Your task to perform on an android device: open chrome and create a bookmark for the current page Image 0: 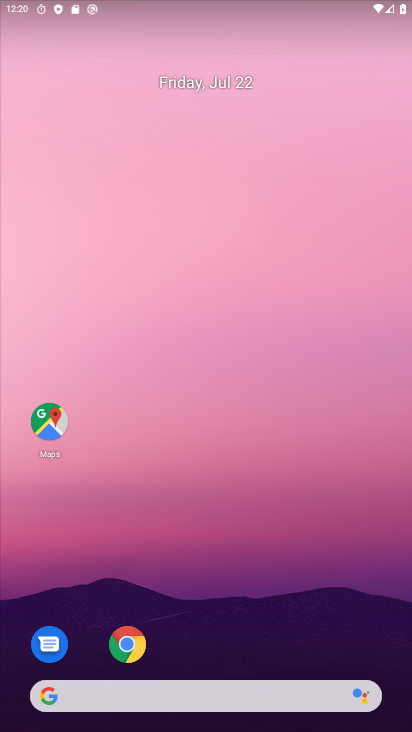
Step 0: drag from (226, 426) to (237, 345)
Your task to perform on an android device: open chrome and create a bookmark for the current page Image 1: 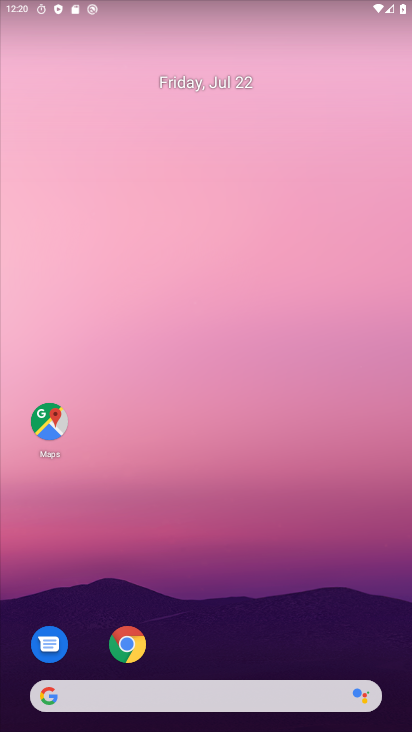
Step 1: drag from (234, 683) to (171, 223)
Your task to perform on an android device: open chrome and create a bookmark for the current page Image 2: 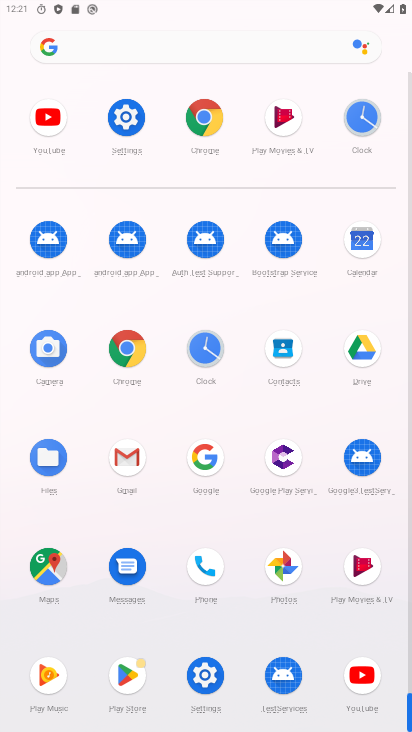
Step 2: click (135, 373)
Your task to perform on an android device: open chrome and create a bookmark for the current page Image 3: 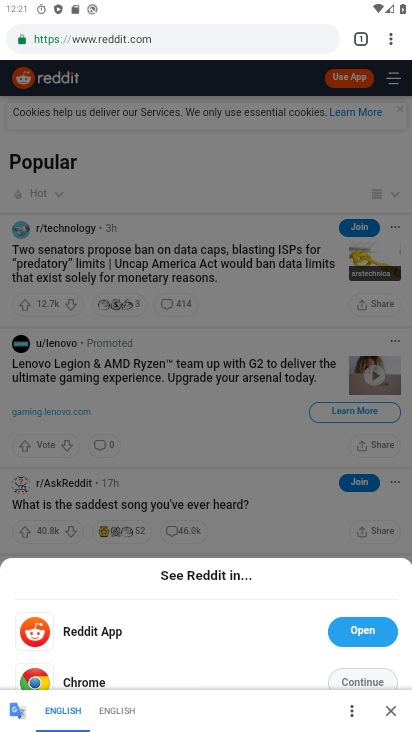
Step 3: click (393, 48)
Your task to perform on an android device: open chrome and create a bookmark for the current page Image 4: 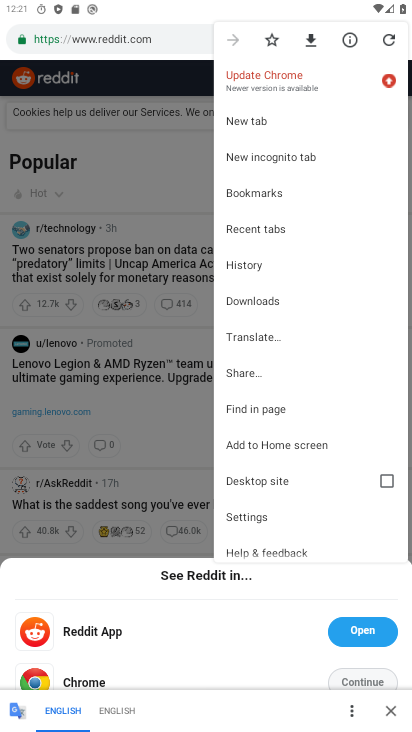
Step 4: click (268, 45)
Your task to perform on an android device: open chrome and create a bookmark for the current page Image 5: 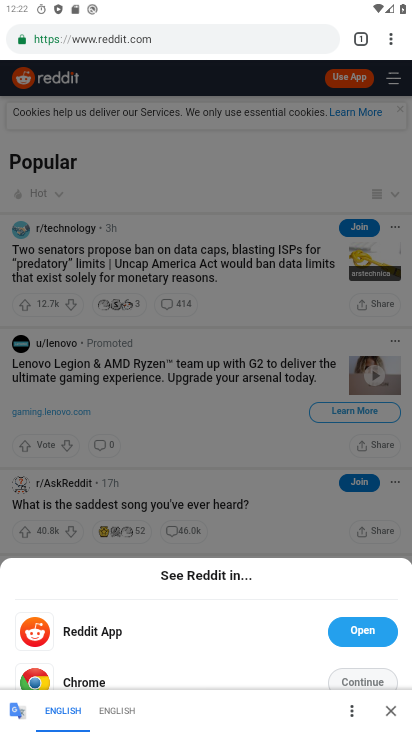
Step 5: task complete